Your task to perform on an android device: Search for Mexican restaurants on Maps Image 0: 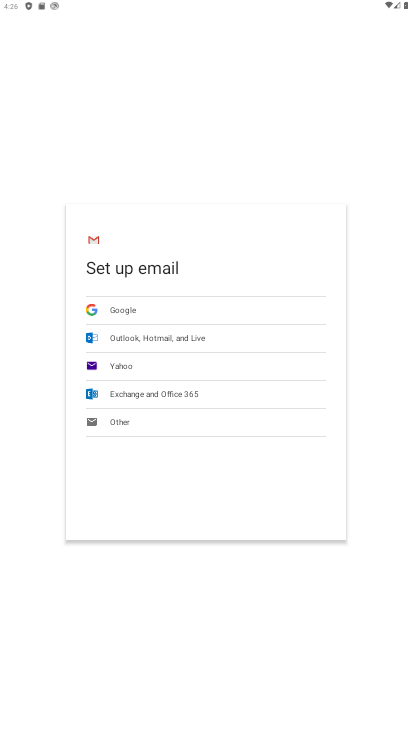
Step 0: press home button
Your task to perform on an android device: Search for Mexican restaurants on Maps Image 1: 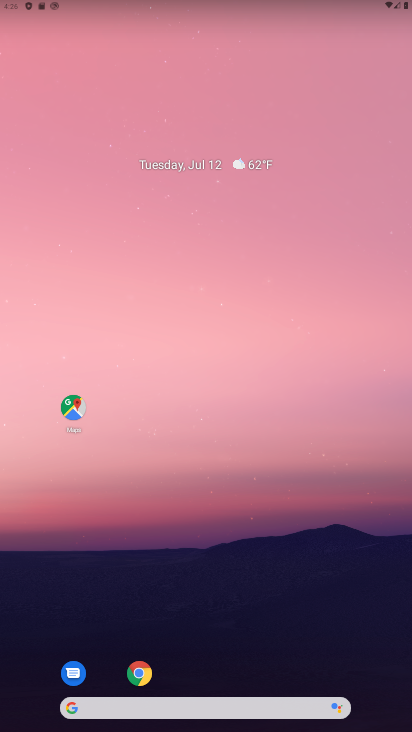
Step 1: drag from (207, 728) to (207, 153)
Your task to perform on an android device: Search for Mexican restaurants on Maps Image 2: 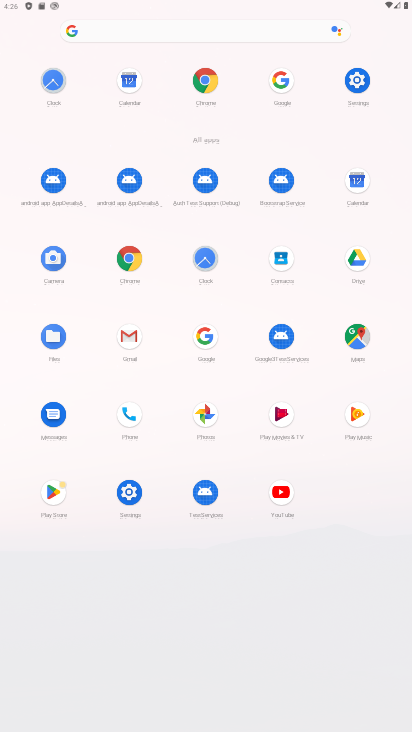
Step 2: click (350, 337)
Your task to perform on an android device: Search for Mexican restaurants on Maps Image 3: 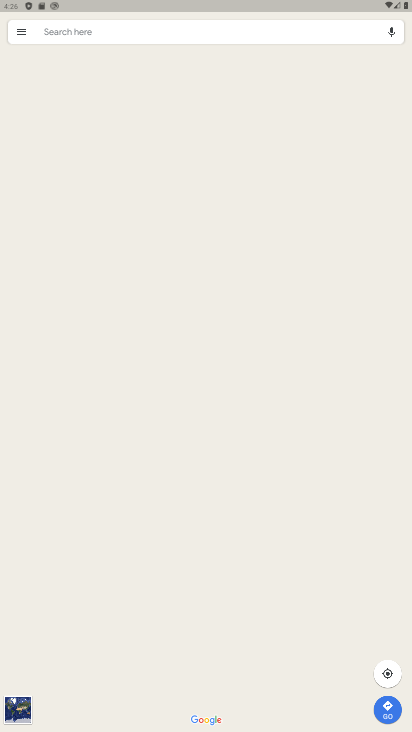
Step 3: click (218, 30)
Your task to perform on an android device: Search for Mexican restaurants on Maps Image 4: 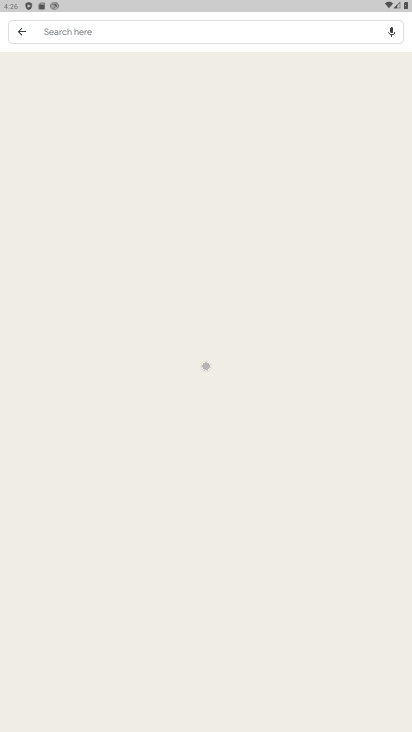
Step 4: click (152, 26)
Your task to perform on an android device: Search for Mexican restaurants on Maps Image 5: 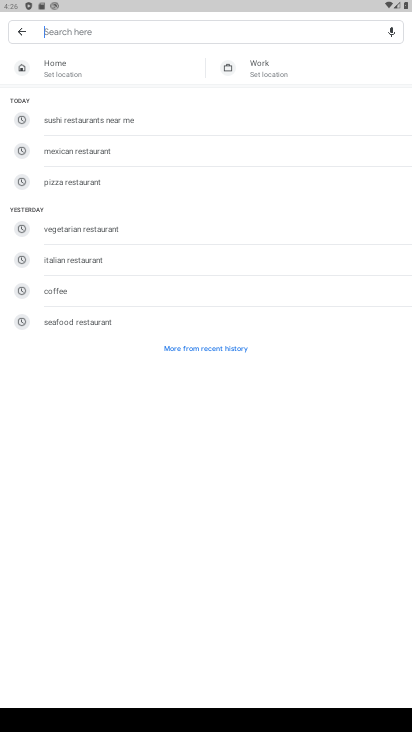
Step 5: type "Mexican restaurants"
Your task to perform on an android device: Search for Mexican restaurants on Maps Image 6: 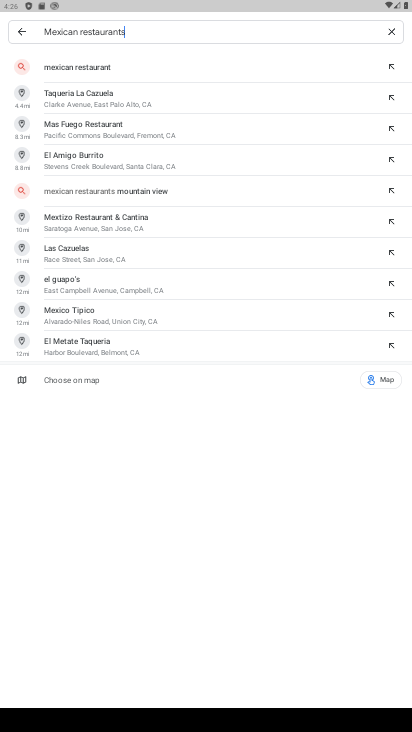
Step 6: click (82, 65)
Your task to perform on an android device: Search for Mexican restaurants on Maps Image 7: 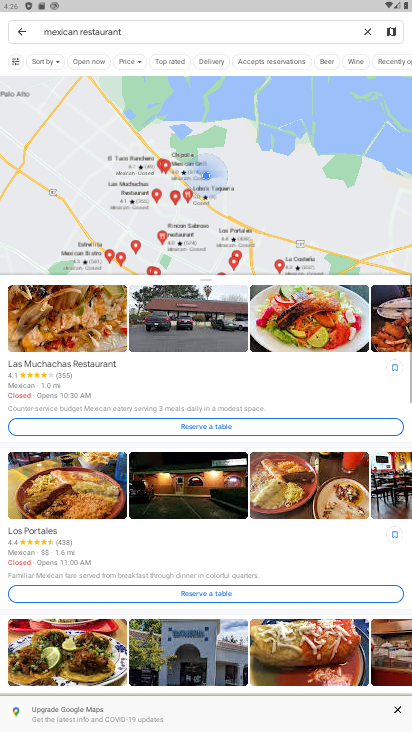
Step 7: task complete